Your task to perform on an android device: turn on bluetooth scan Image 0: 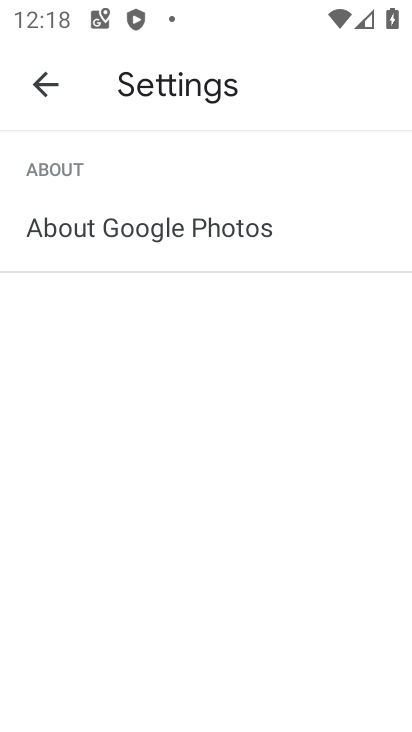
Step 0: press home button
Your task to perform on an android device: turn on bluetooth scan Image 1: 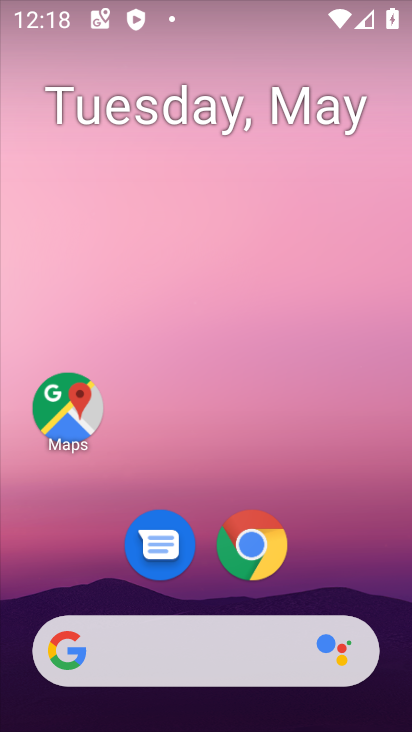
Step 1: drag from (192, 597) to (261, 33)
Your task to perform on an android device: turn on bluetooth scan Image 2: 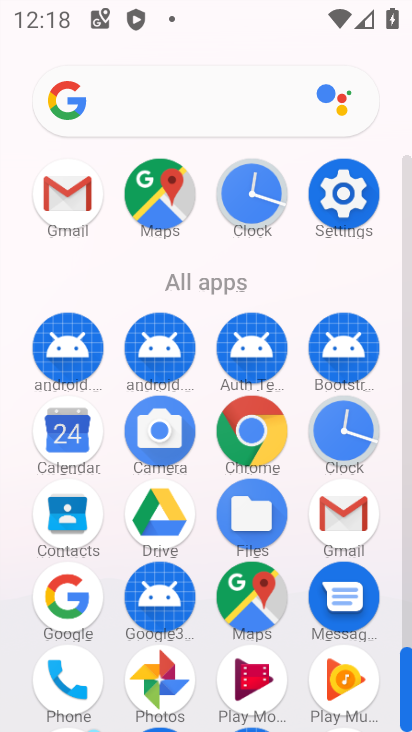
Step 2: click (351, 182)
Your task to perform on an android device: turn on bluetooth scan Image 3: 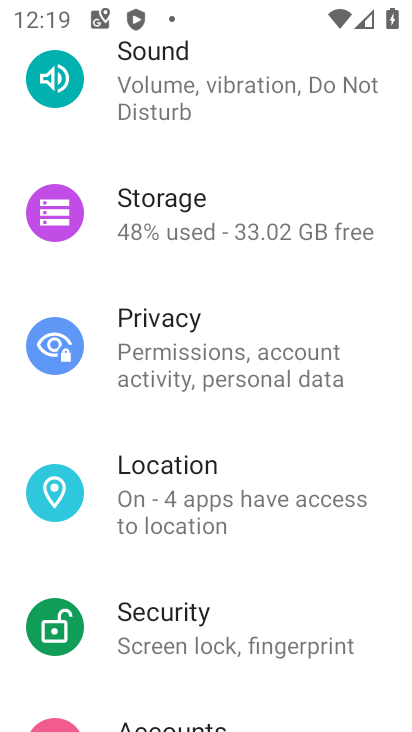
Step 3: click (165, 498)
Your task to perform on an android device: turn on bluetooth scan Image 4: 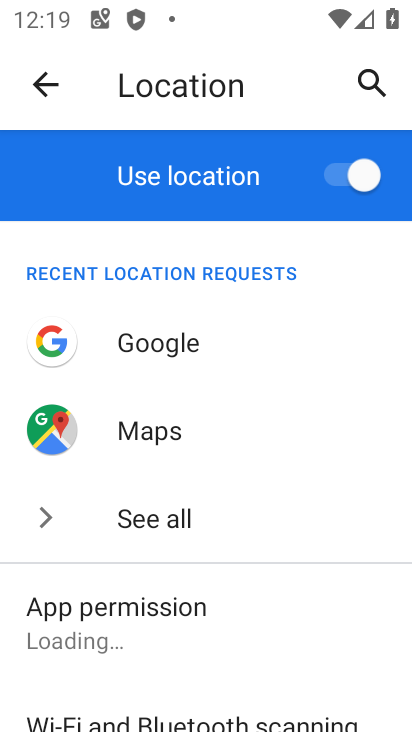
Step 4: drag from (153, 702) to (187, 267)
Your task to perform on an android device: turn on bluetooth scan Image 5: 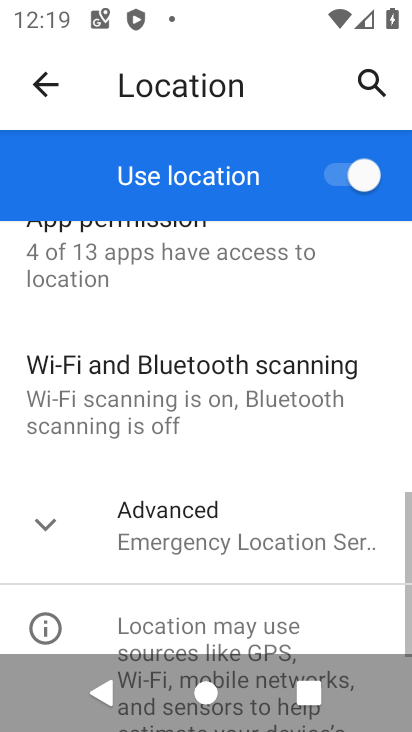
Step 5: click (208, 359)
Your task to perform on an android device: turn on bluetooth scan Image 6: 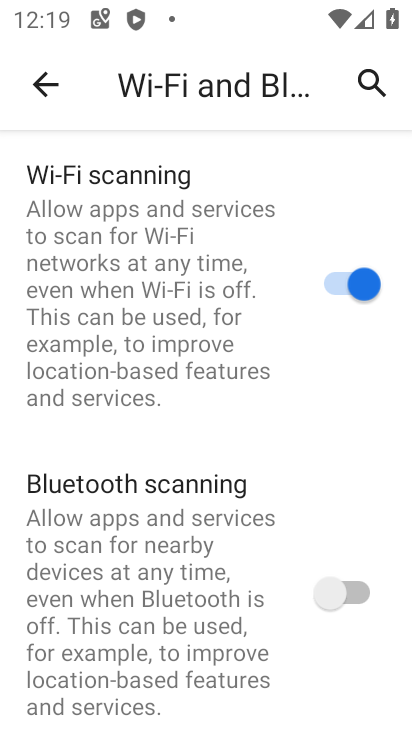
Step 6: click (361, 607)
Your task to perform on an android device: turn on bluetooth scan Image 7: 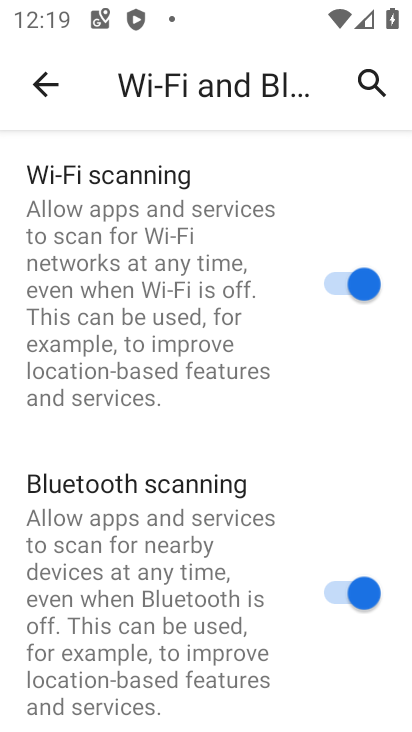
Step 7: task complete